Your task to perform on an android device: Open the stopwatch Image 0: 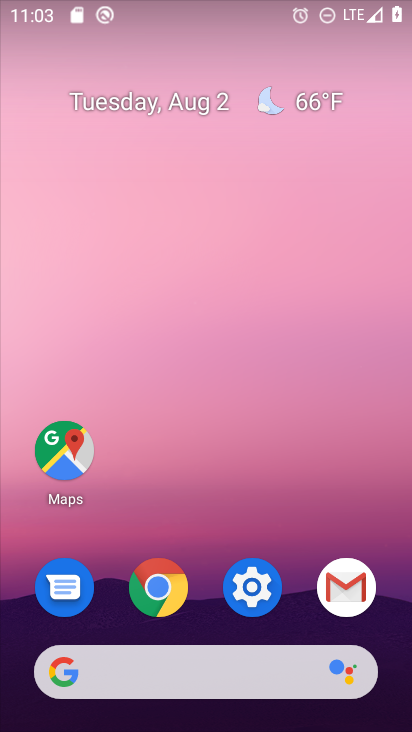
Step 0: drag from (249, 697) to (145, 162)
Your task to perform on an android device: Open the stopwatch Image 1: 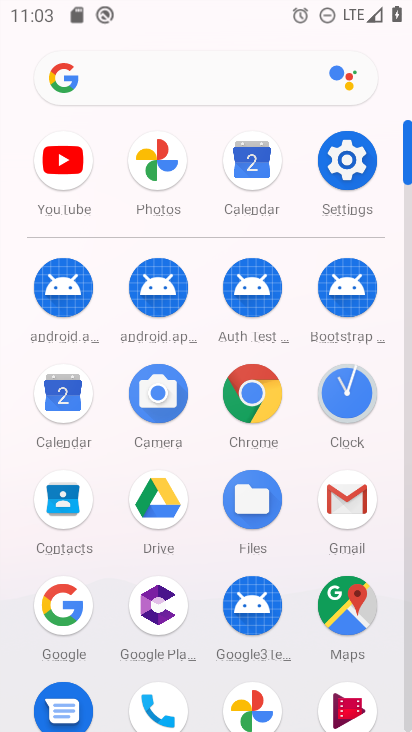
Step 1: click (338, 408)
Your task to perform on an android device: Open the stopwatch Image 2: 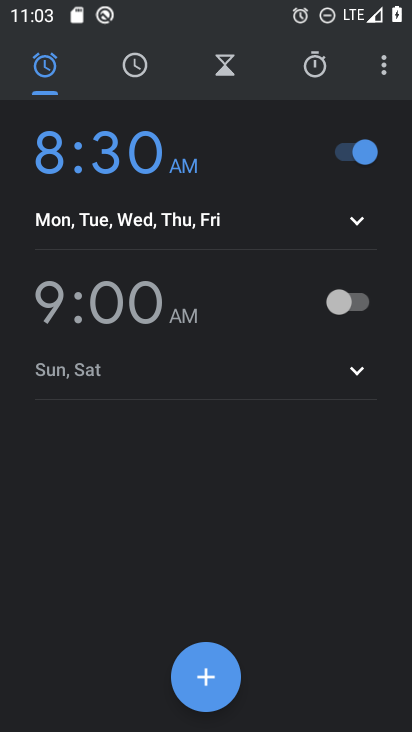
Step 2: click (301, 66)
Your task to perform on an android device: Open the stopwatch Image 3: 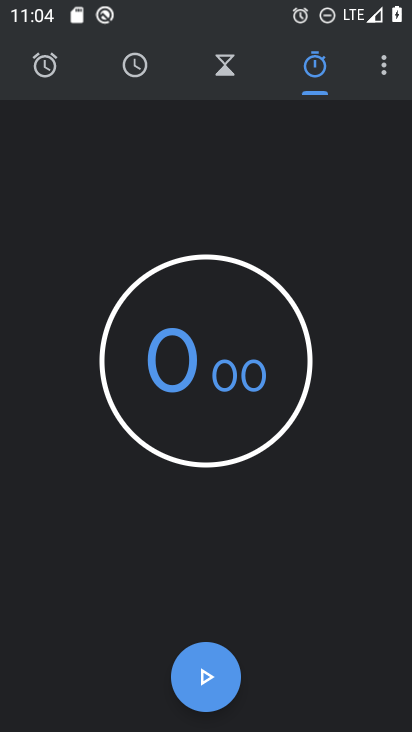
Step 3: task complete